Your task to perform on an android device: toggle wifi Image 0: 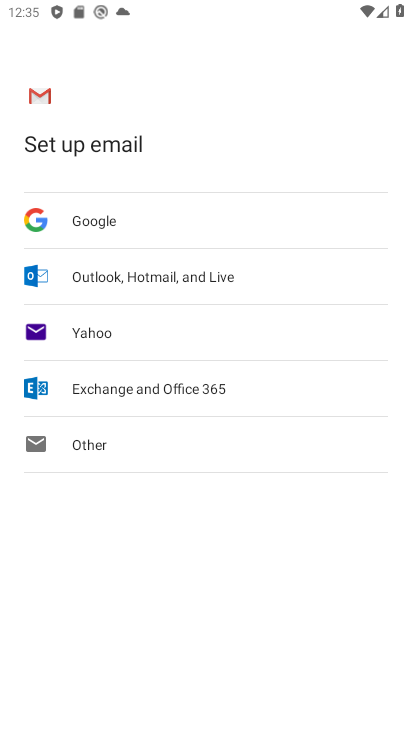
Step 0: press home button
Your task to perform on an android device: toggle wifi Image 1: 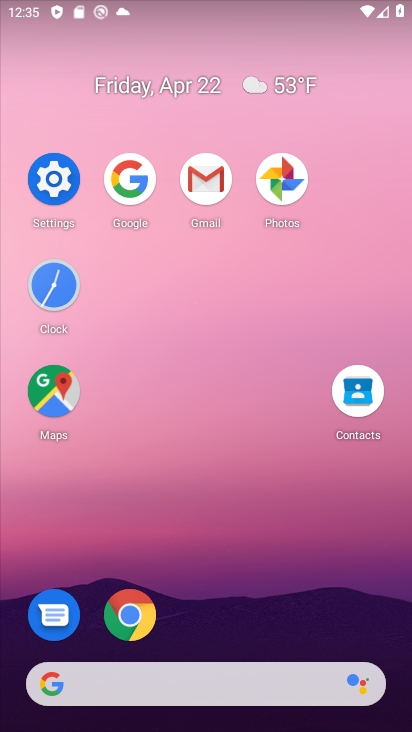
Step 1: click (61, 172)
Your task to perform on an android device: toggle wifi Image 2: 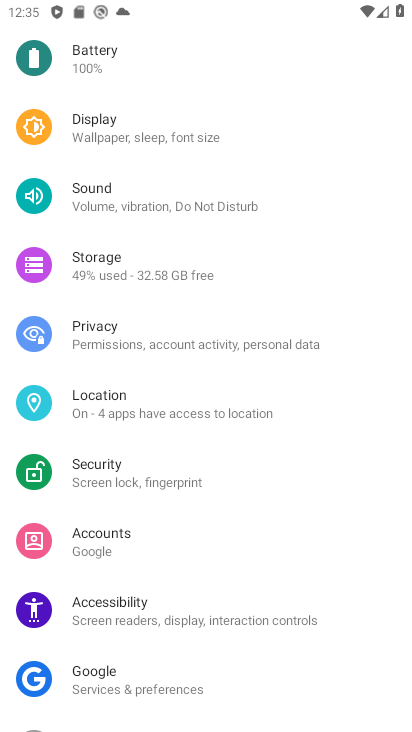
Step 2: drag from (272, 214) to (238, 616)
Your task to perform on an android device: toggle wifi Image 3: 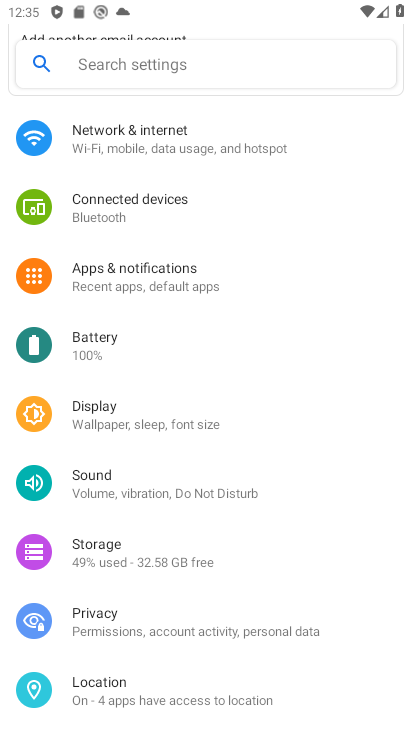
Step 3: click (178, 146)
Your task to perform on an android device: toggle wifi Image 4: 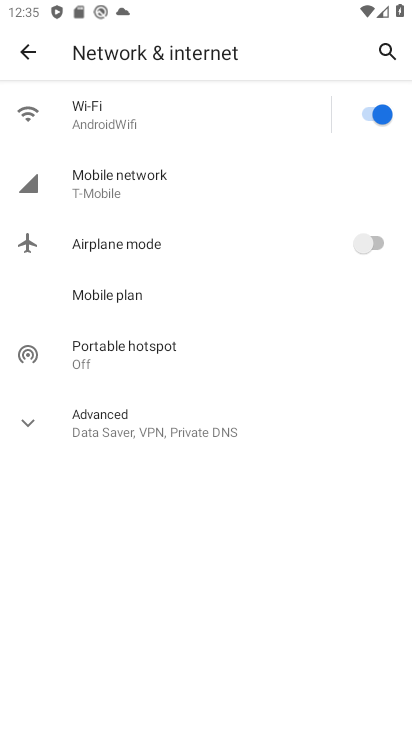
Step 4: click (382, 110)
Your task to perform on an android device: toggle wifi Image 5: 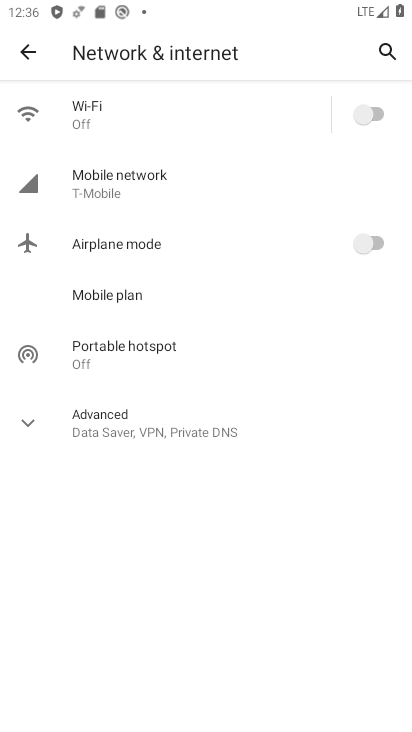
Step 5: task complete